Your task to perform on an android device: show emergency info Image 0: 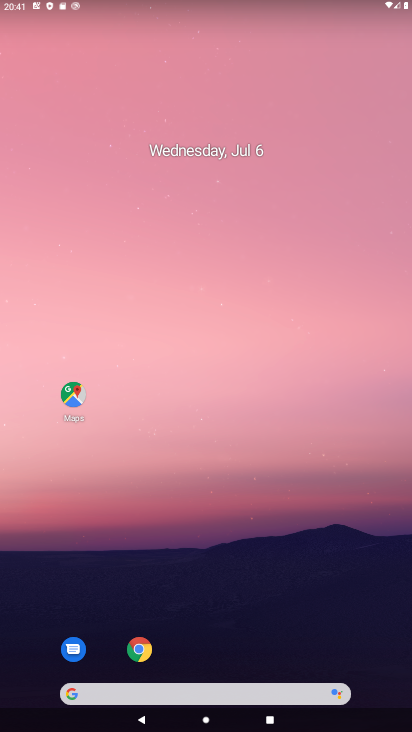
Step 0: drag from (158, 698) to (313, 52)
Your task to perform on an android device: show emergency info Image 1: 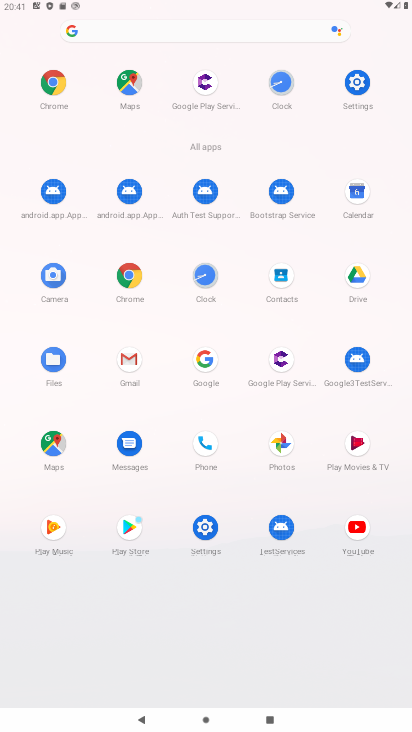
Step 1: click (362, 78)
Your task to perform on an android device: show emergency info Image 2: 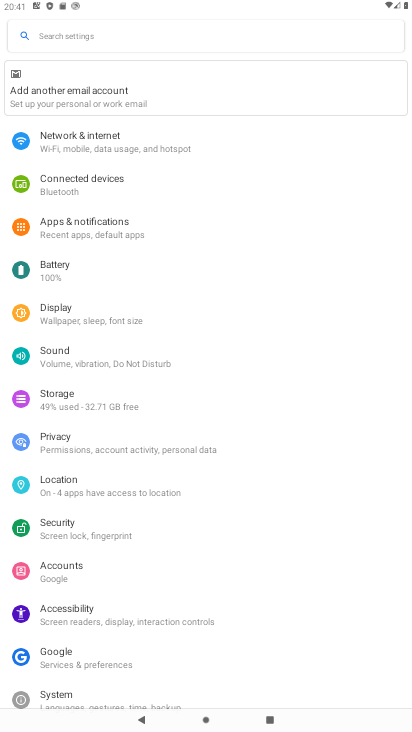
Step 2: drag from (276, 379) to (347, 121)
Your task to perform on an android device: show emergency info Image 3: 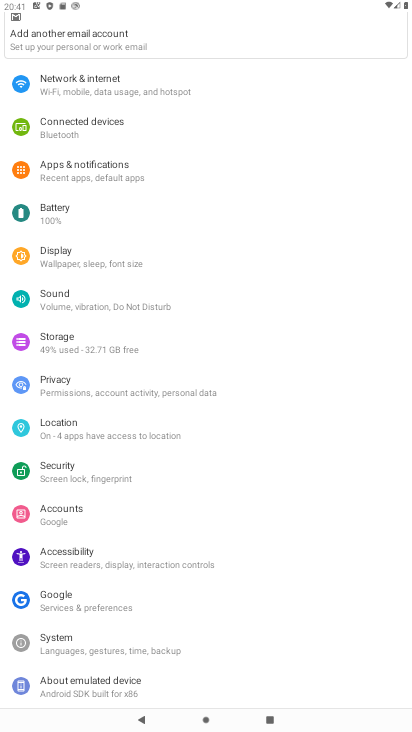
Step 3: click (127, 681)
Your task to perform on an android device: show emergency info Image 4: 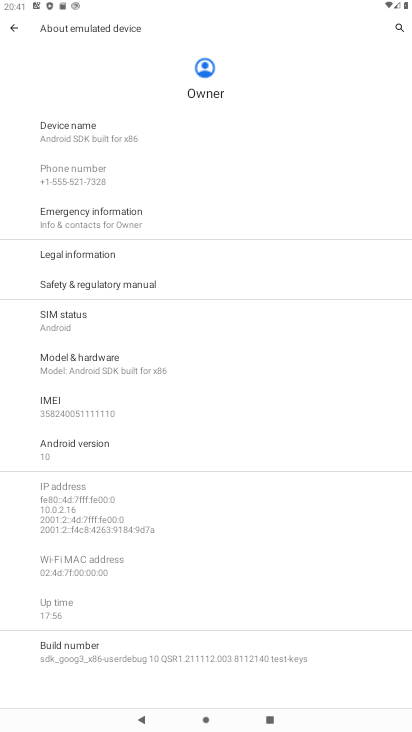
Step 4: click (125, 207)
Your task to perform on an android device: show emergency info Image 5: 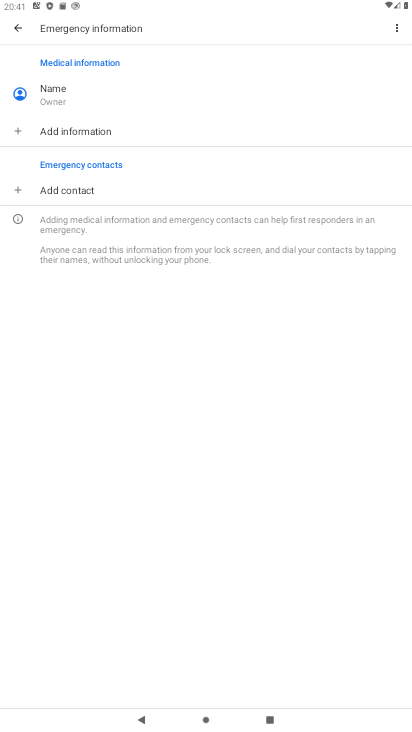
Step 5: task complete